Your task to perform on an android device: change alarm snooze length Image 0: 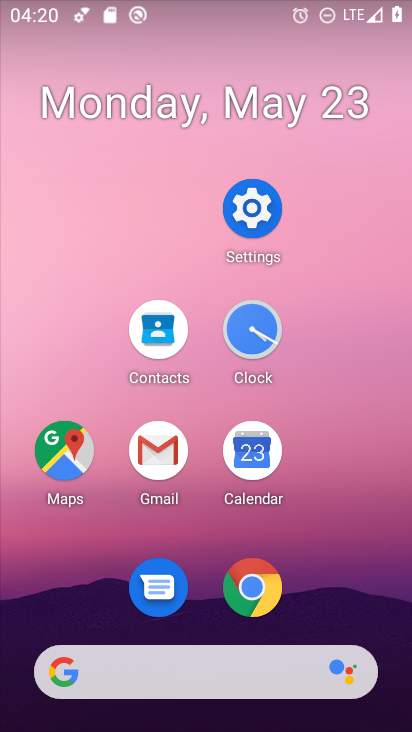
Step 0: click (257, 331)
Your task to perform on an android device: change alarm snooze length Image 1: 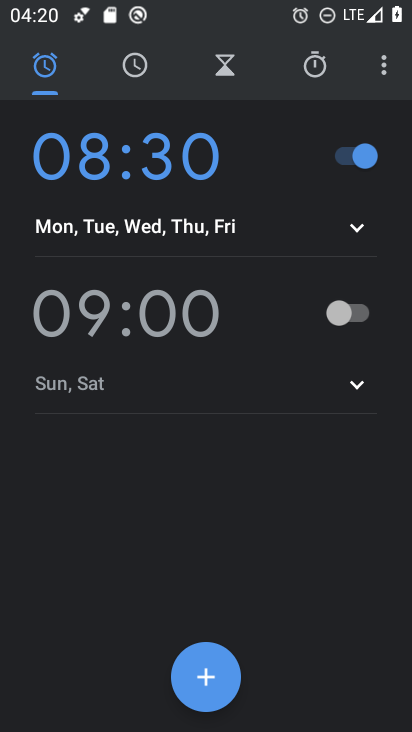
Step 1: click (377, 53)
Your task to perform on an android device: change alarm snooze length Image 2: 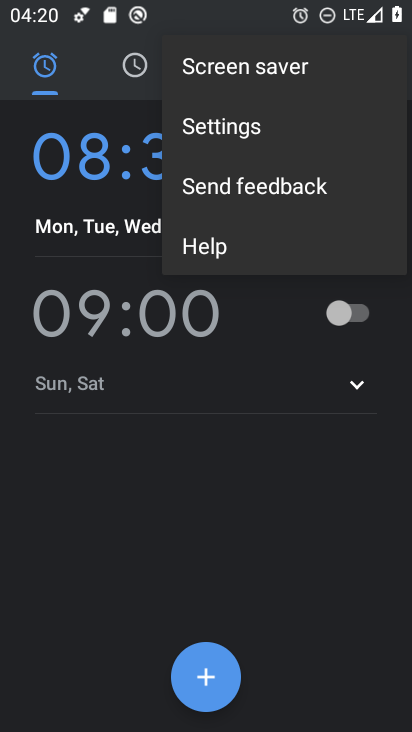
Step 2: click (284, 127)
Your task to perform on an android device: change alarm snooze length Image 3: 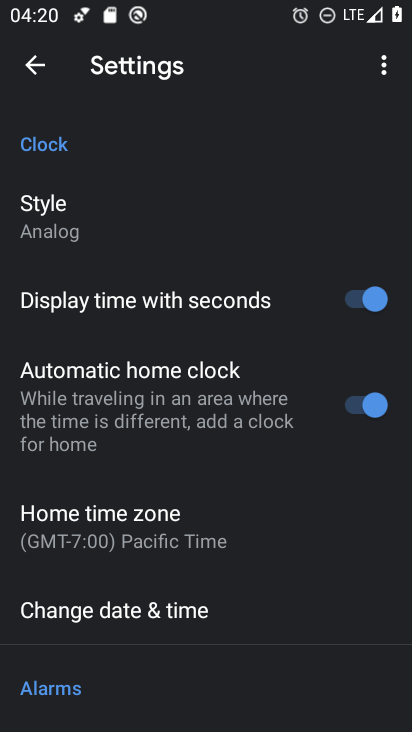
Step 3: click (123, 595)
Your task to perform on an android device: change alarm snooze length Image 4: 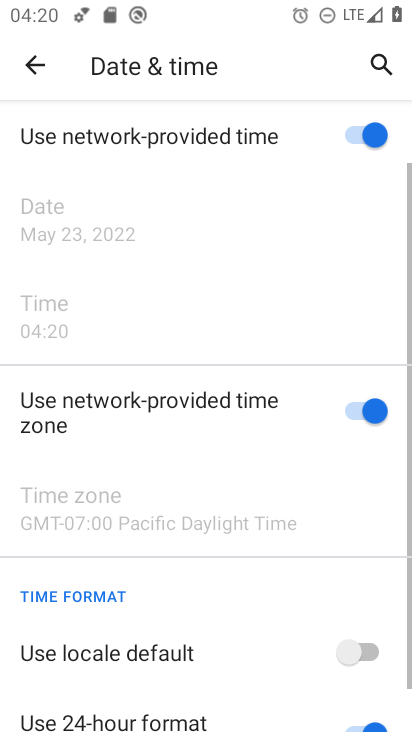
Step 4: click (41, 71)
Your task to perform on an android device: change alarm snooze length Image 5: 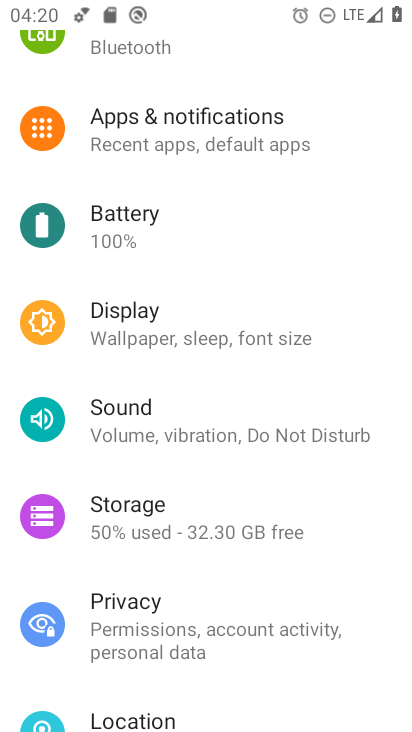
Step 5: drag from (159, 607) to (224, 191)
Your task to perform on an android device: change alarm snooze length Image 6: 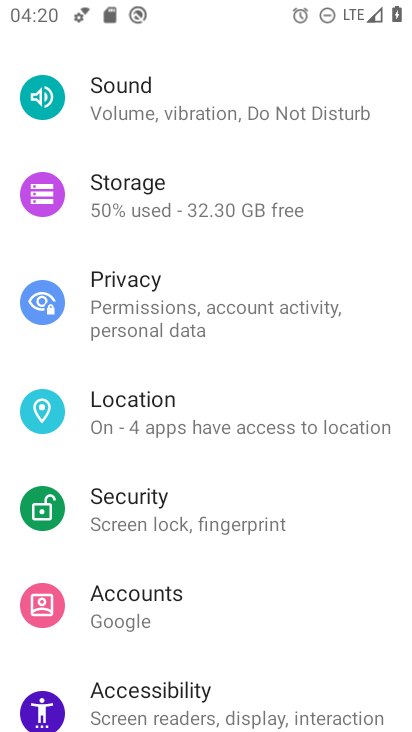
Step 6: press home button
Your task to perform on an android device: change alarm snooze length Image 7: 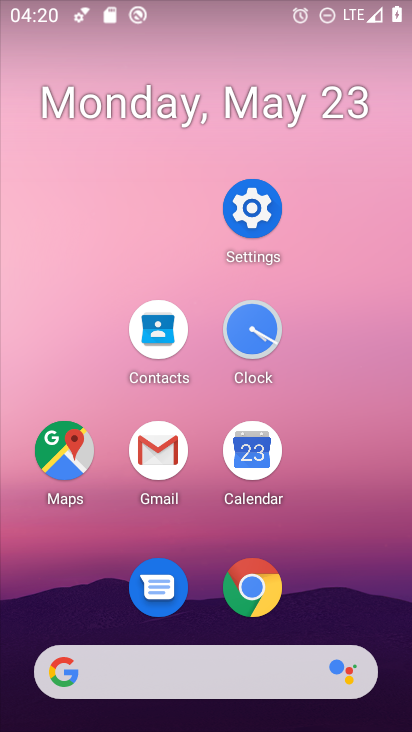
Step 7: click (265, 324)
Your task to perform on an android device: change alarm snooze length Image 8: 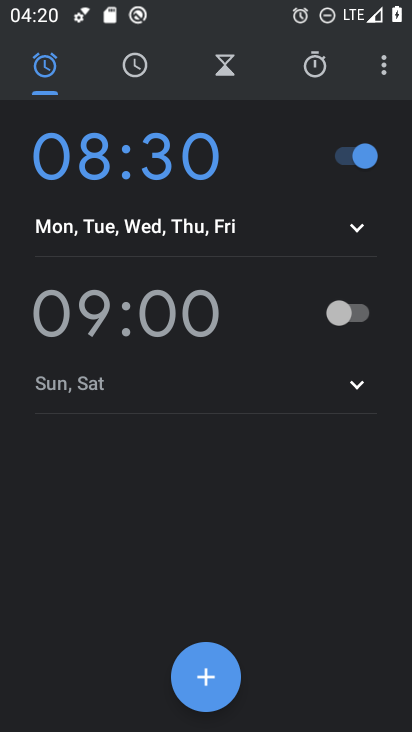
Step 8: click (388, 57)
Your task to perform on an android device: change alarm snooze length Image 9: 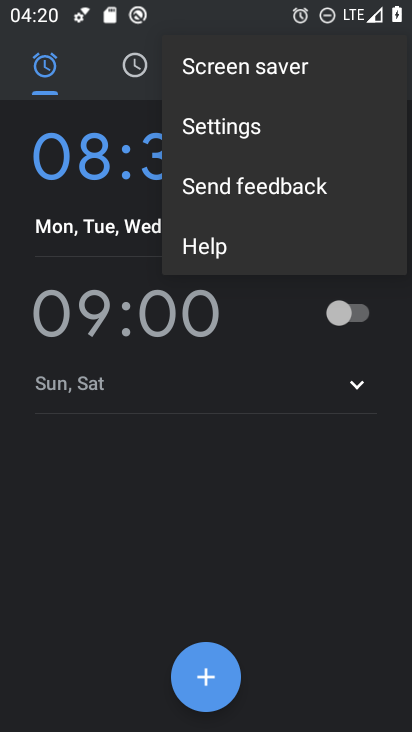
Step 9: click (252, 137)
Your task to perform on an android device: change alarm snooze length Image 10: 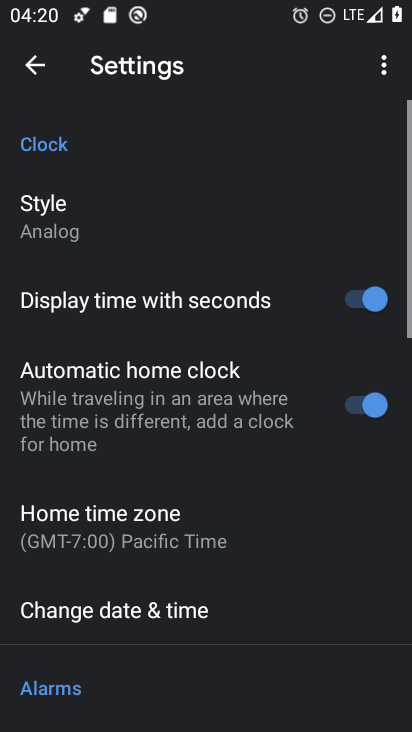
Step 10: task complete